Your task to perform on an android device: delete a single message in the gmail app Image 0: 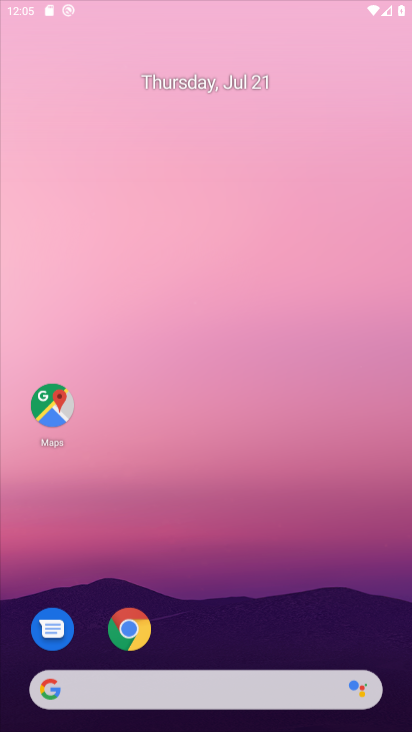
Step 0: click (368, 210)
Your task to perform on an android device: delete a single message in the gmail app Image 1: 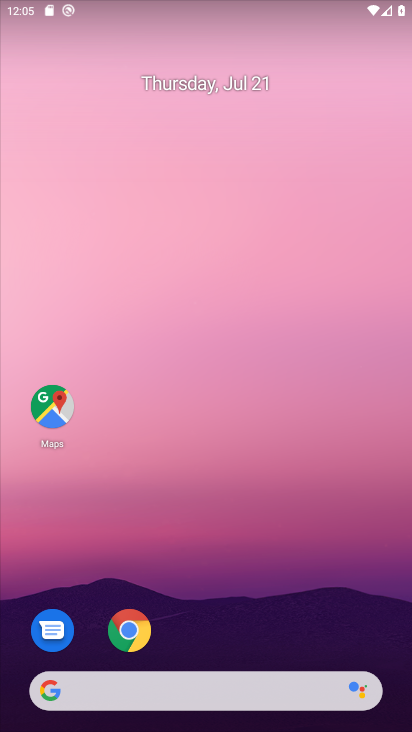
Step 1: drag from (172, 583) to (228, 93)
Your task to perform on an android device: delete a single message in the gmail app Image 2: 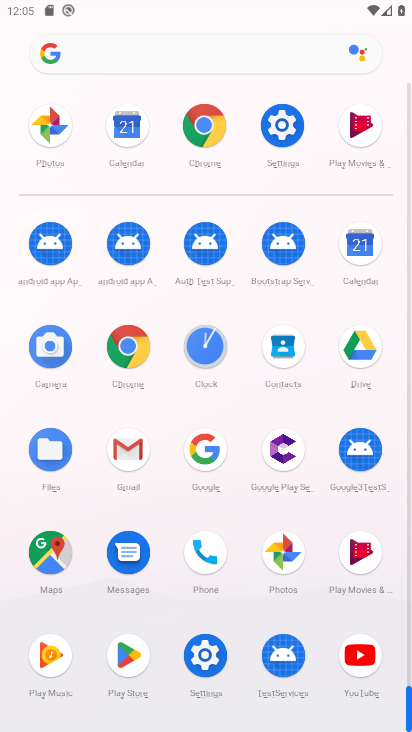
Step 2: click (122, 446)
Your task to perform on an android device: delete a single message in the gmail app Image 3: 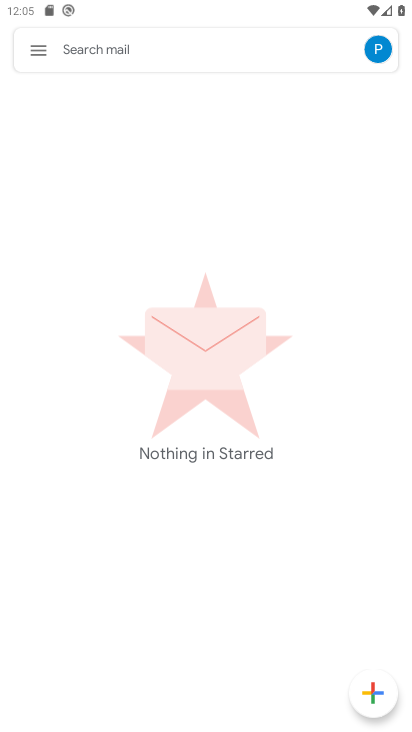
Step 3: drag from (192, 542) to (278, 56)
Your task to perform on an android device: delete a single message in the gmail app Image 4: 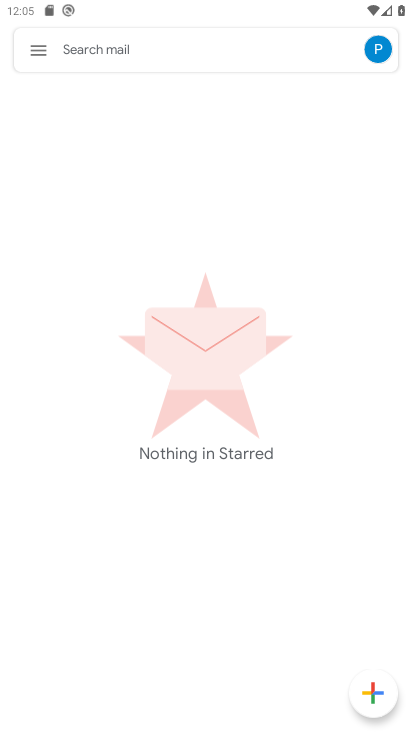
Step 4: drag from (232, 452) to (227, 191)
Your task to perform on an android device: delete a single message in the gmail app Image 5: 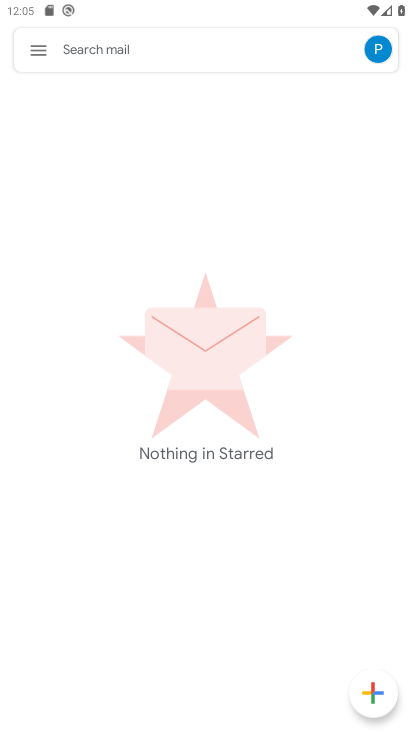
Step 5: click (33, 38)
Your task to perform on an android device: delete a single message in the gmail app Image 6: 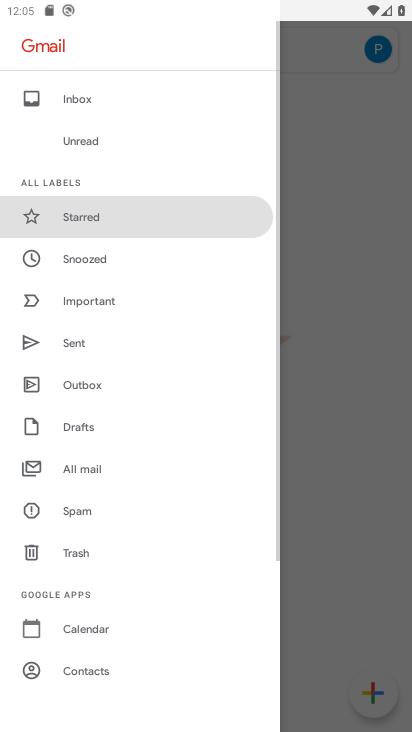
Step 6: click (315, 386)
Your task to perform on an android device: delete a single message in the gmail app Image 7: 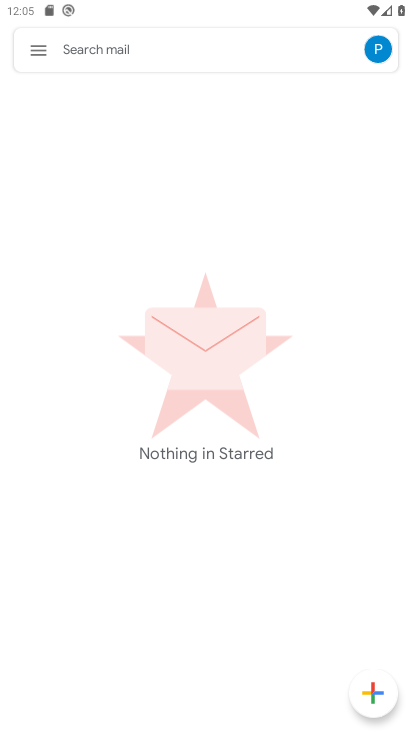
Step 7: task complete